Your task to perform on an android device: Open notification settings Image 0: 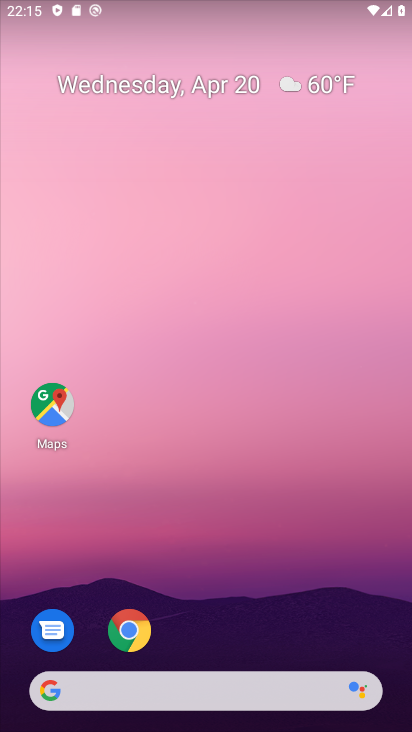
Step 0: drag from (237, 634) to (304, 51)
Your task to perform on an android device: Open notification settings Image 1: 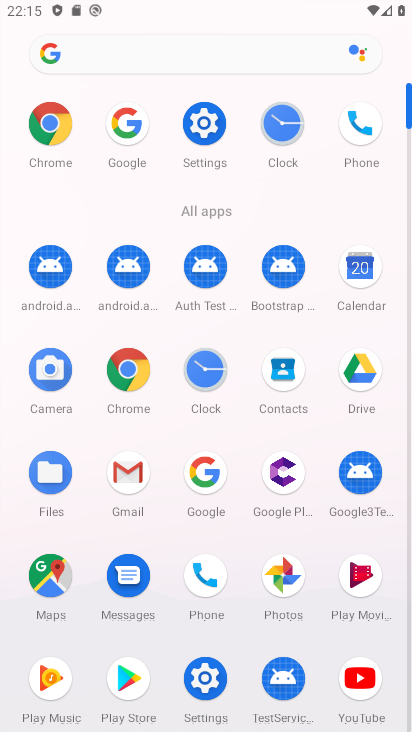
Step 1: click (205, 110)
Your task to perform on an android device: Open notification settings Image 2: 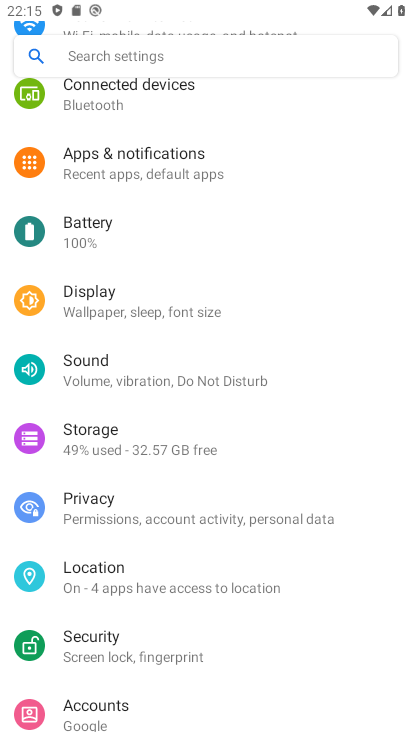
Step 2: click (174, 152)
Your task to perform on an android device: Open notification settings Image 3: 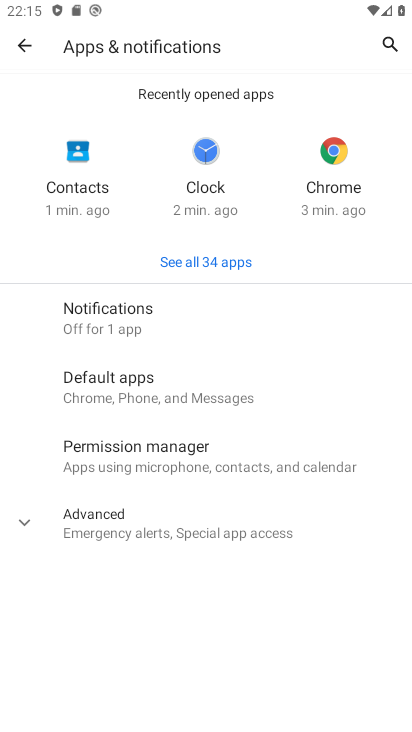
Step 3: task complete